Your task to perform on an android device: Open network settings Image 0: 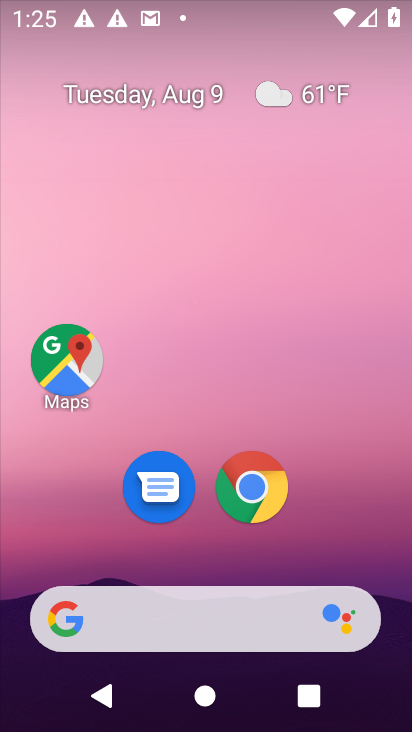
Step 0: drag from (267, 609) to (171, 155)
Your task to perform on an android device: Open network settings Image 1: 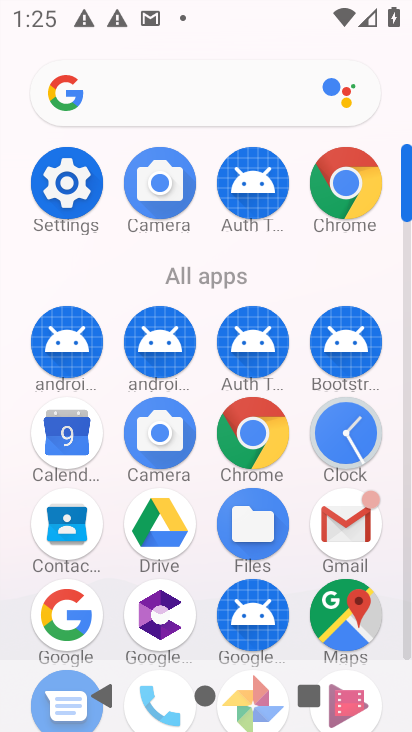
Step 1: click (73, 193)
Your task to perform on an android device: Open network settings Image 2: 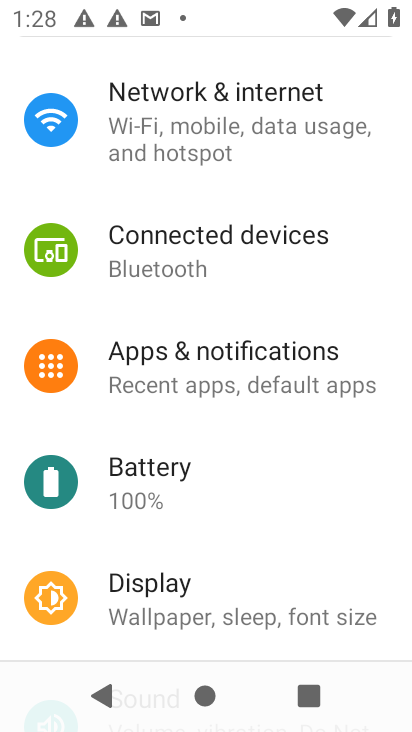
Step 2: click (213, 108)
Your task to perform on an android device: Open network settings Image 3: 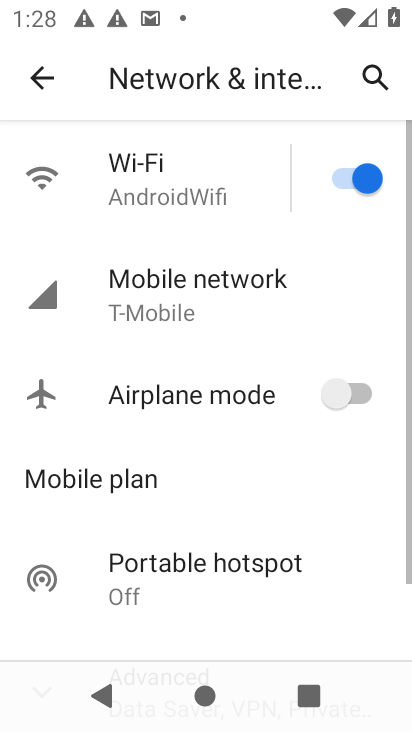
Step 3: task complete